Your task to perform on an android device: turn off translation in the chrome app Image 0: 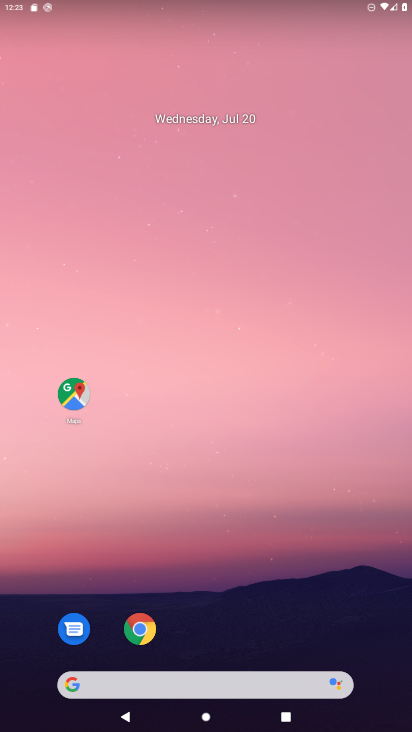
Step 0: click (136, 649)
Your task to perform on an android device: turn off translation in the chrome app Image 1: 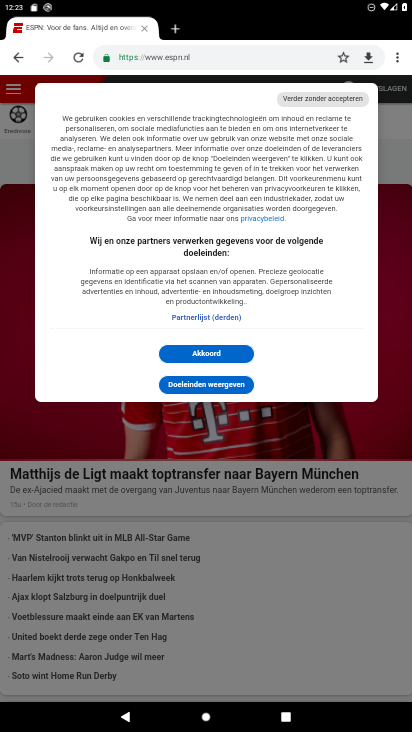
Step 1: click (395, 65)
Your task to perform on an android device: turn off translation in the chrome app Image 2: 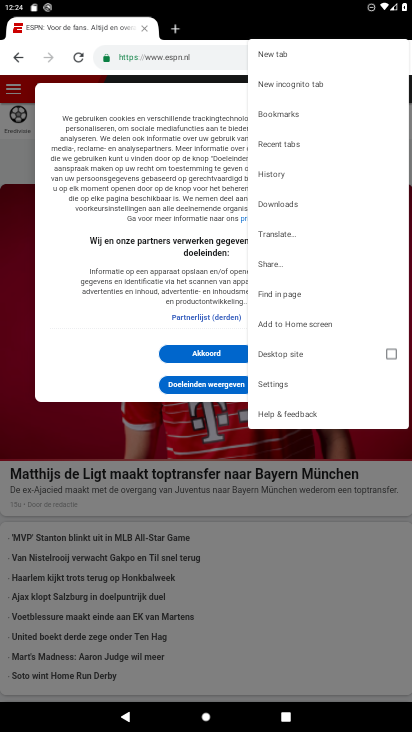
Step 2: click (278, 380)
Your task to perform on an android device: turn off translation in the chrome app Image 3: 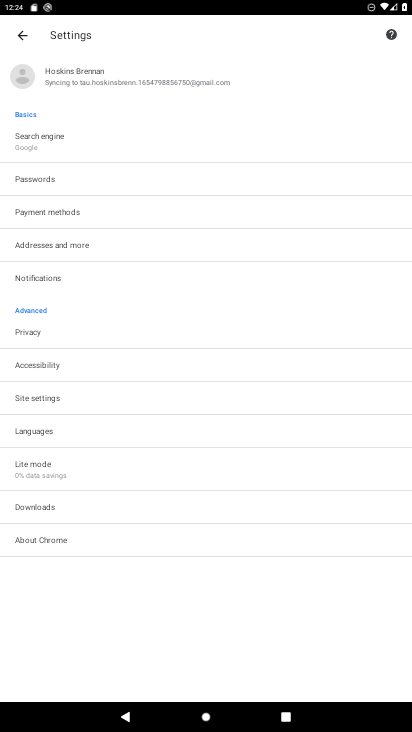
Step 3: click (36, 436)
Your task to perform on an android device: turn off translation in the chrome app Image 4: 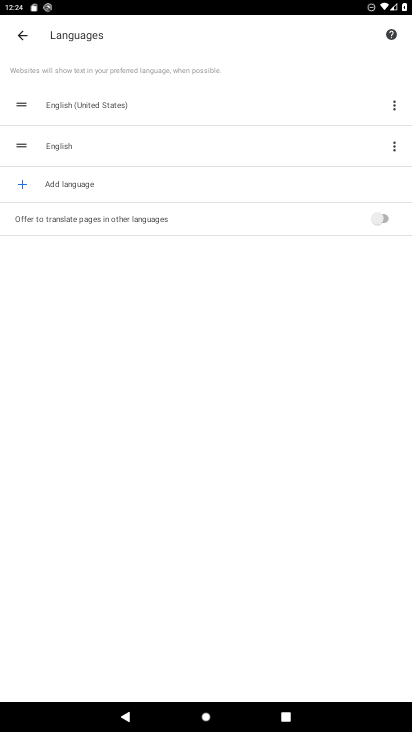
Step 4: task complete